Your task to perform on an android device: Open the calendar and show me this week's events? Image 0: 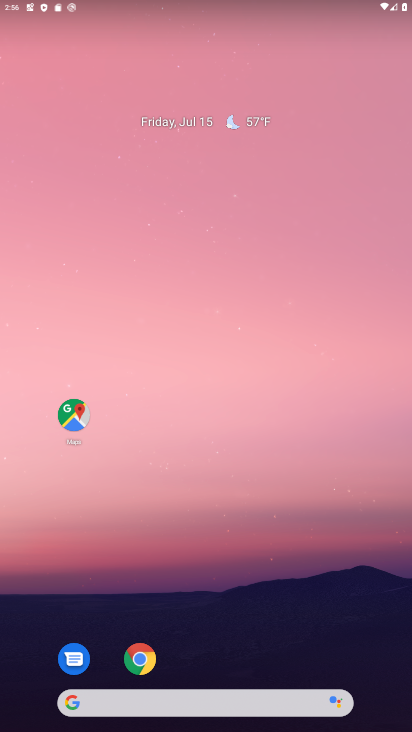
Step 0: drag from (221, 653) to (280, 251)
Your task to perform on an android device: Open the calendar and show me this week's events? Image 1: 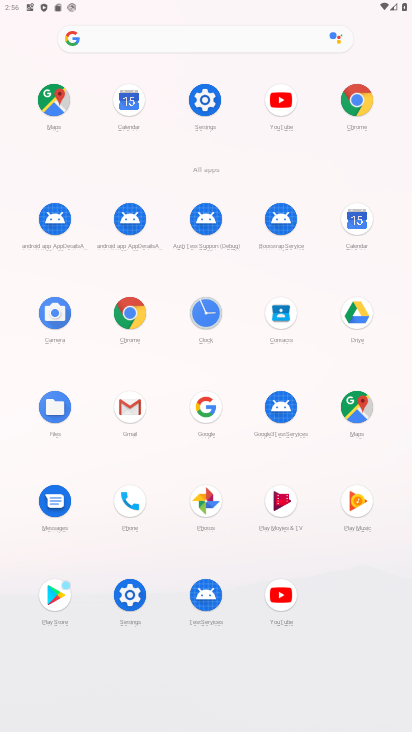
Step 1: click (356, 226)
Your task to perform on an android device: Open the calendar and show me this week's events? Image 2: 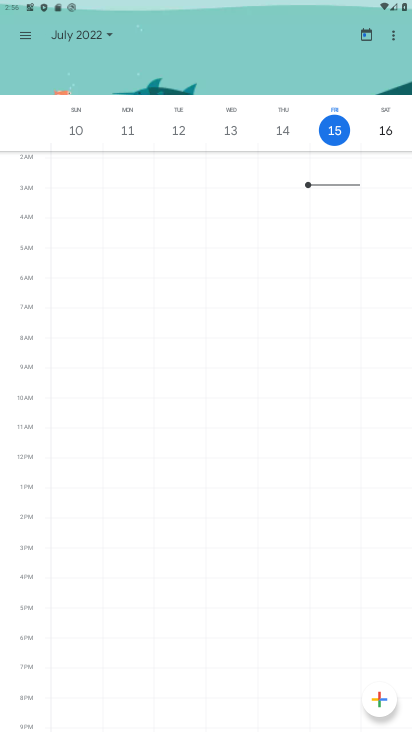
Step 2: click (19, 31)
Your task to perform on an android device: Open the calendar and show me this week's events? Image 3: 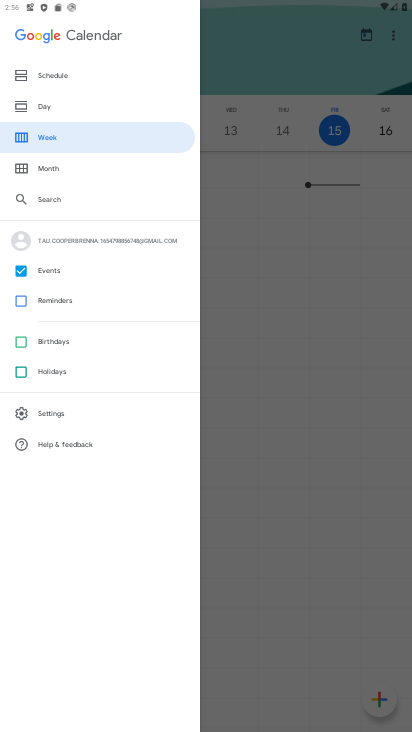
Step 3: click (95, 143)
Your task to perform on an android device: Open the calendar and show me this week's events? Image 4: 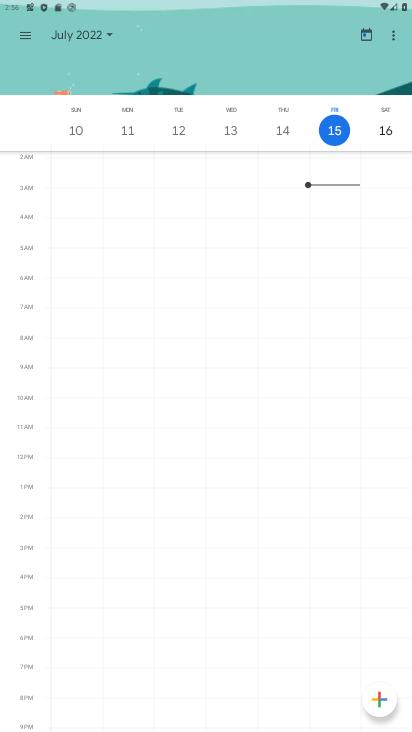
Step 4: task complete